Your task to perform on an android device: Go to calendar. Show me events next week Image 0: 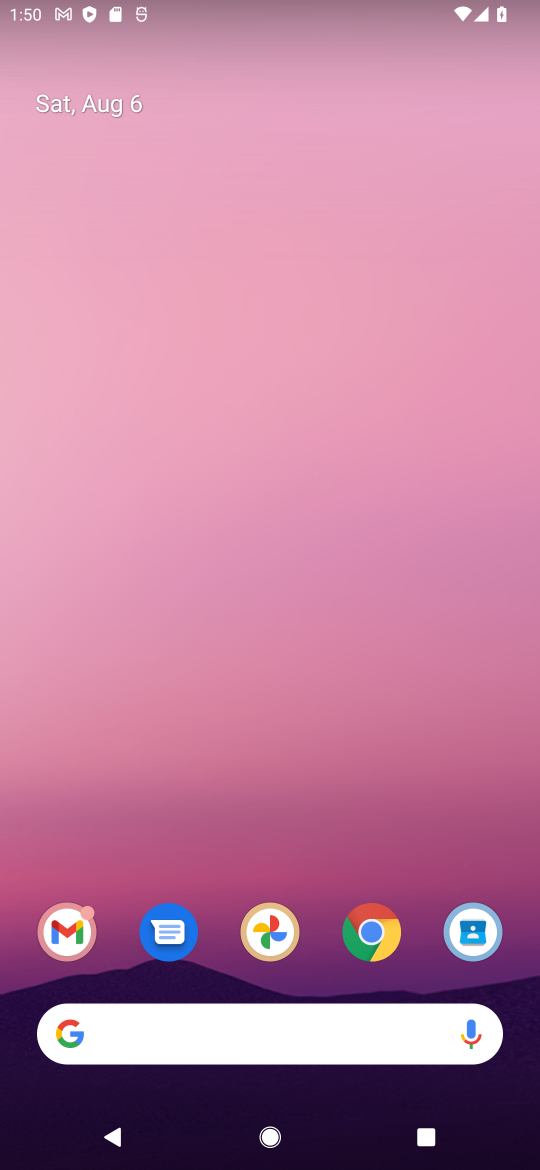
Step 0: drag from (324, 955) to (379, 68)
Your task to perform on an android device: Go to calendar. Show me events next week Image 1: 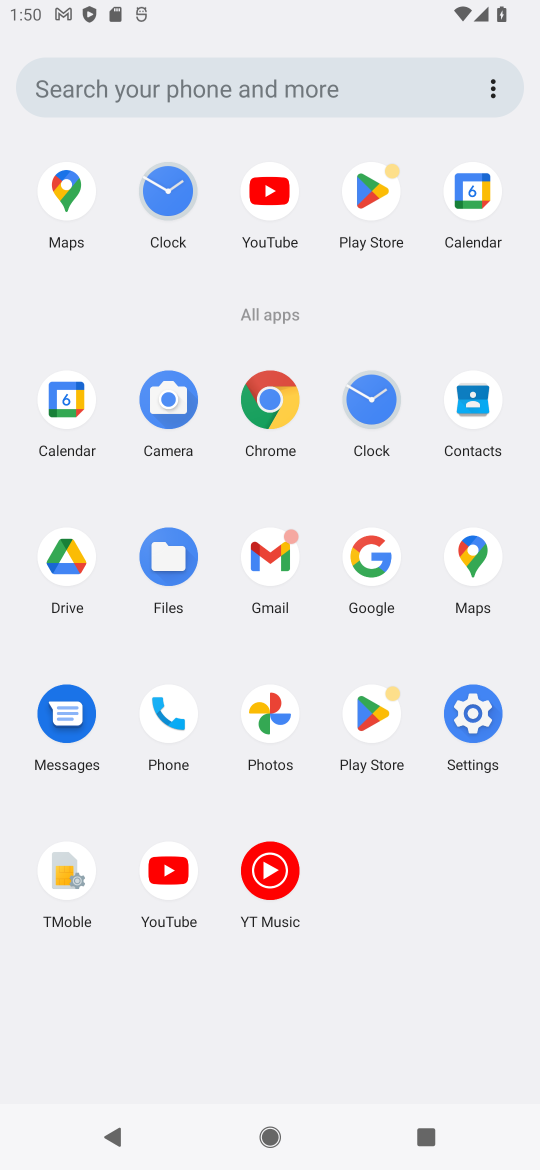
Step 1: click (480, 186)
Your task to perform on an android device: Go to calendar. Show me events next week Image 2: 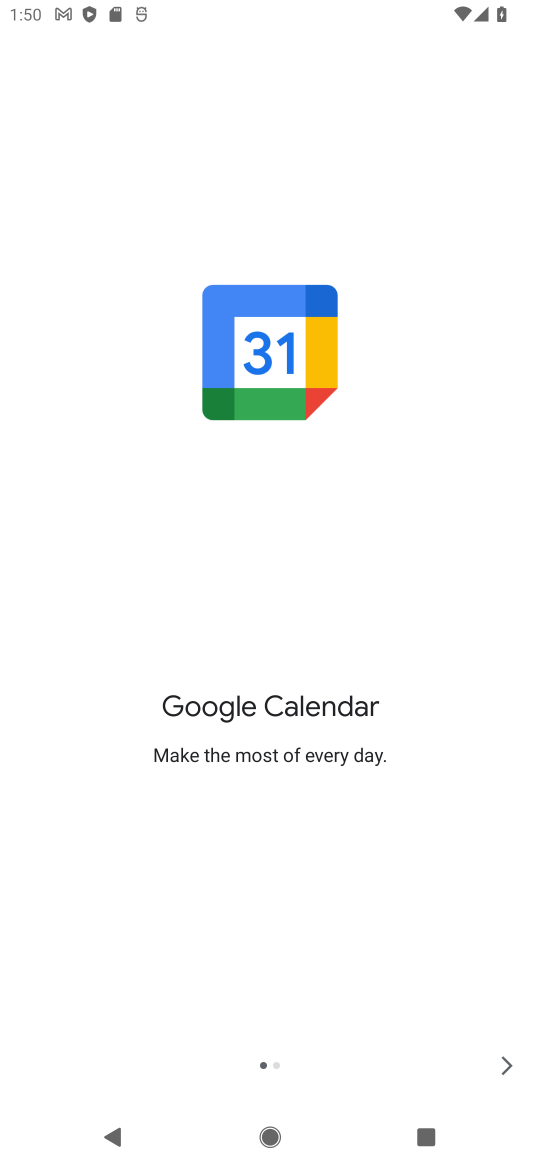
Step 2: click (487, 1068)
Your task to perform on an android device: Go to calendar. Show me events next week Image 3: 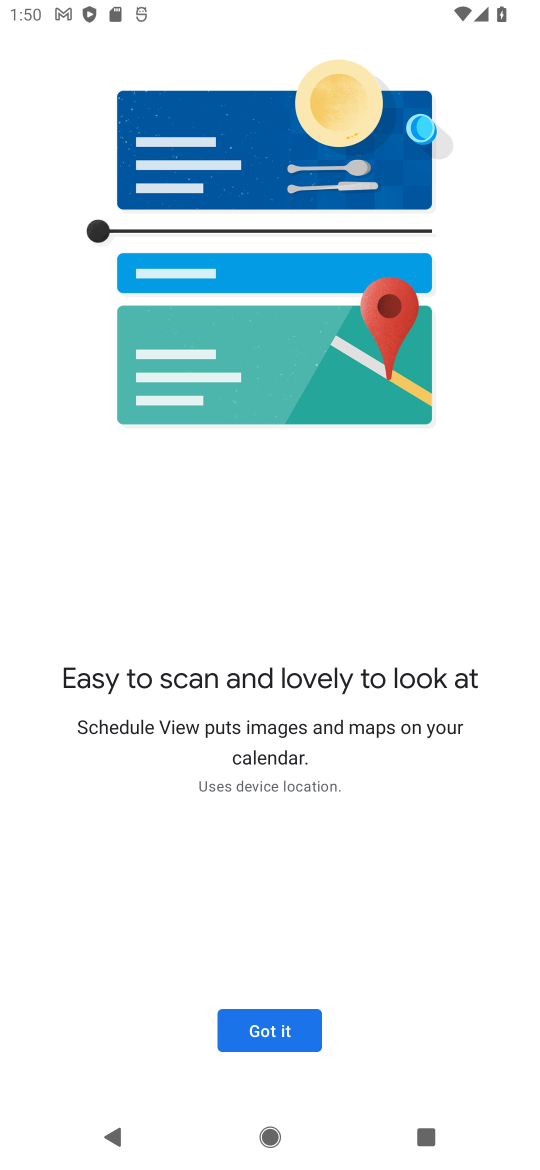
Step 3: click (487, 1068)
Your task to perform on an android device: Go to calendar. Show me events next week Image 4: 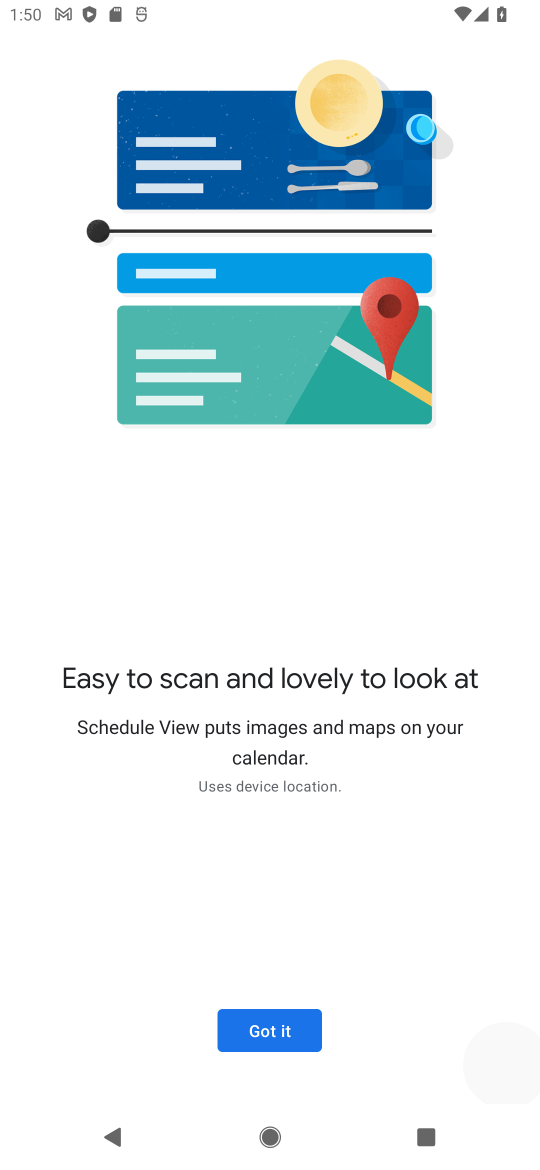
Step 4: click (292, 1027)
Your task to perform on an android device: Go to calendar. Show me events next week Image 5: 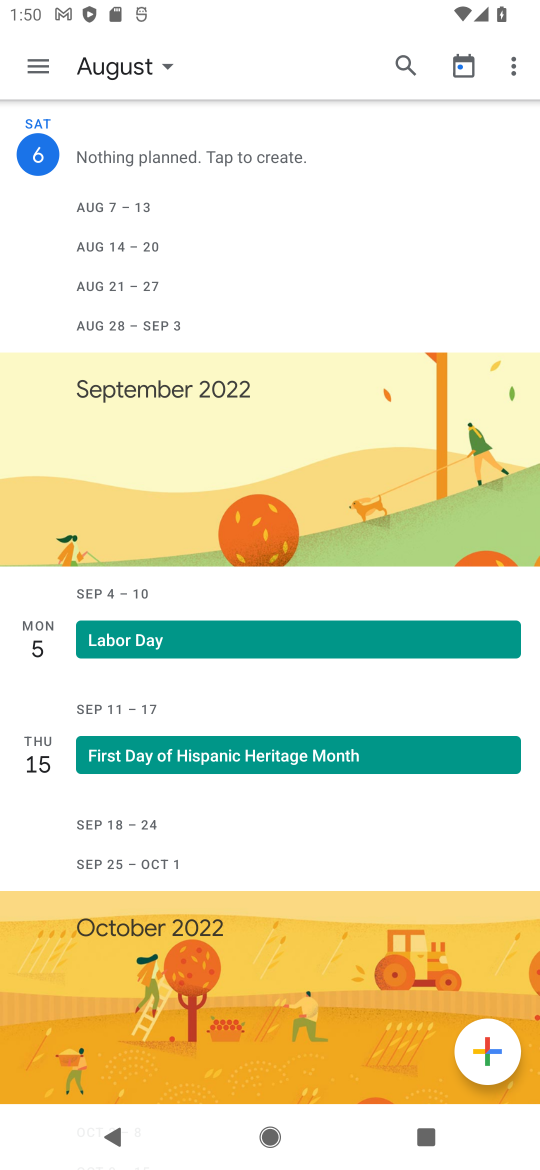
Step 5: click (156, 64)
Your task to perform on an android device: Go to calendar. Show me events next week Image 6: 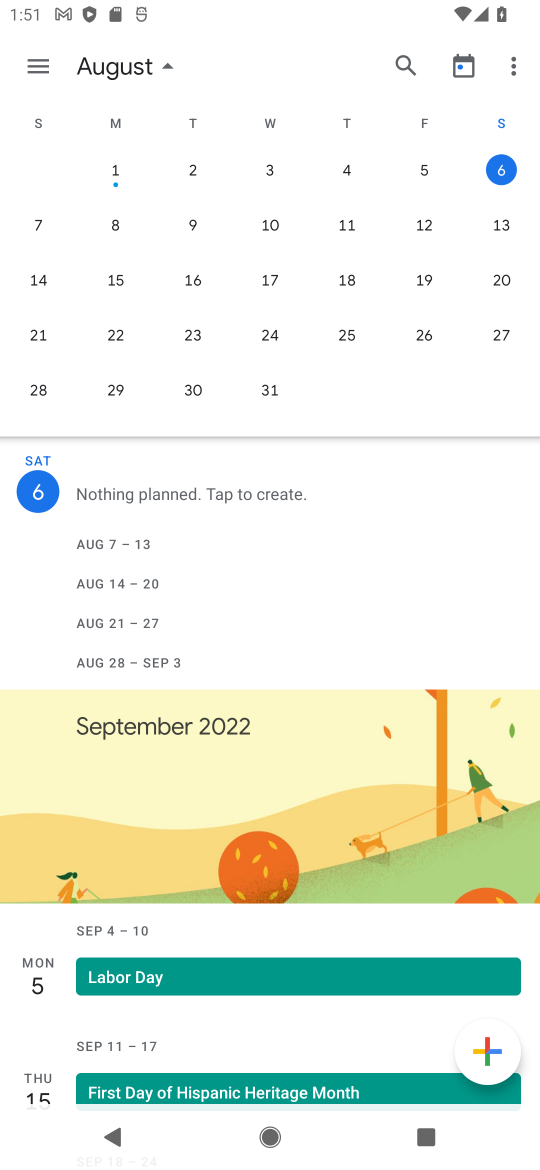
Step 6: click (502, 227)
Your task to perform on an android device: Go to calendar. Show me events next week Image 7: 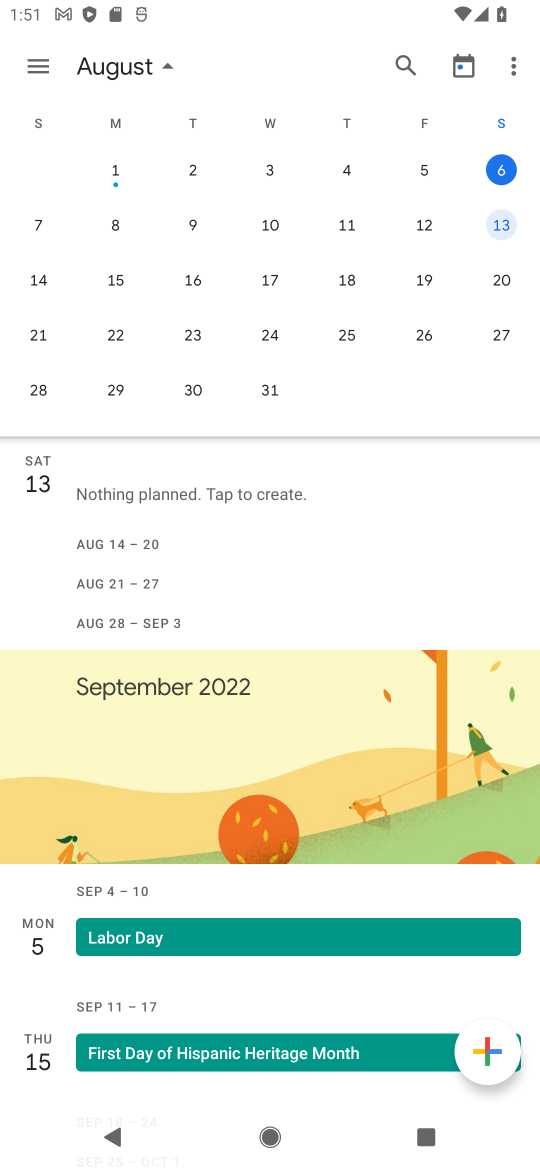
Step 7: task complete